Your task to perform on an android device: clear history in the chrome app Image 0: 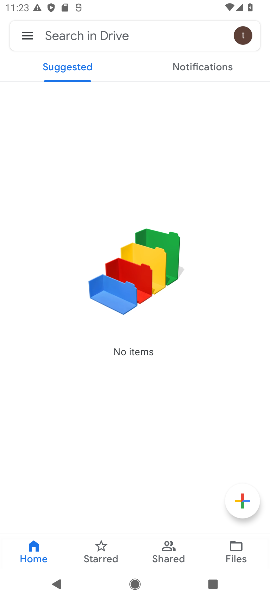
Step 0: press home button
Your task to perform on an android device: clear history in the chrome app Image 1: 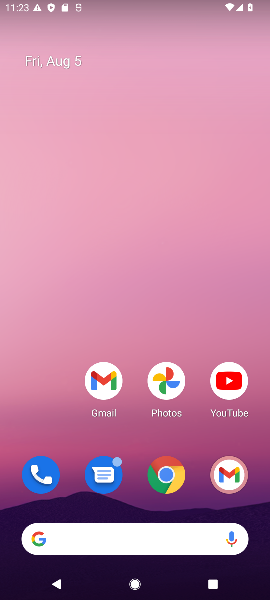
Step 1: click (176, 478)
Your task to perform on an android device: clear history in the chrome app Image 2: 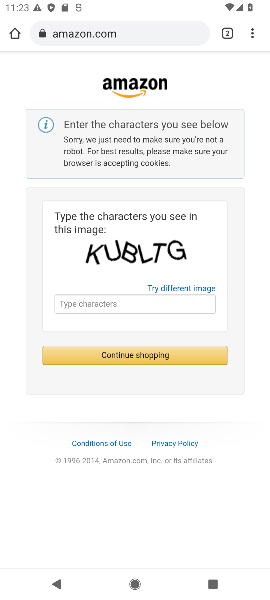
Step 2: click (253, 27)
Your task to perform on an android device: clear history in the chrome app Image 3: 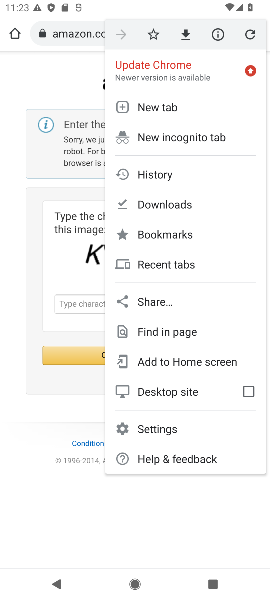
Step 3: click (148, 433)
Your task to perform on an android device: clear history in the chrome app Image 4: 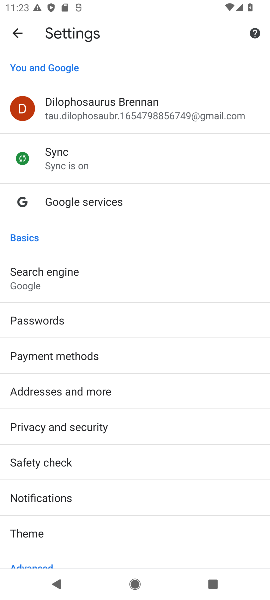
Step 4: drag from (104, 477) to (133, 314)
Your task to perform on an android device: clear history in the chrome app Image 5: 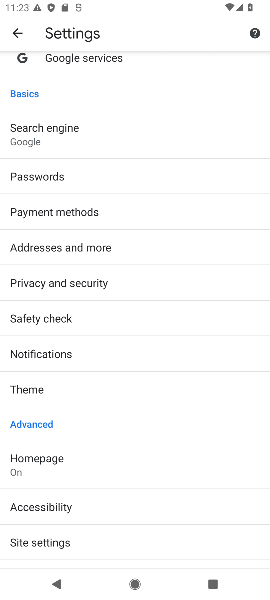
Step 5: click (20, 31)
Your task to perform on an android device: clear history in the chrome app Image 6: 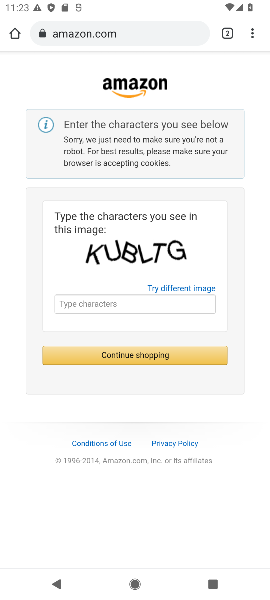
Step 6: click (252, 38)
Your task to perform on an android device: clear history in the chrome app Image 7: 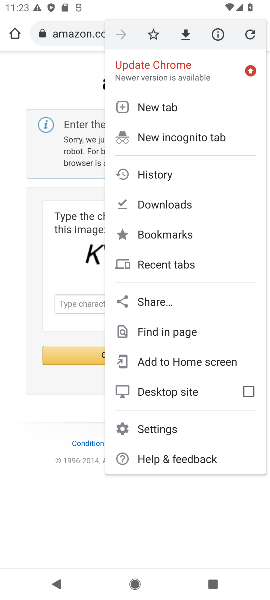
Step 7: click (170, 176)
Your task to perform on an android device: clear history in the chrome app Image 8: 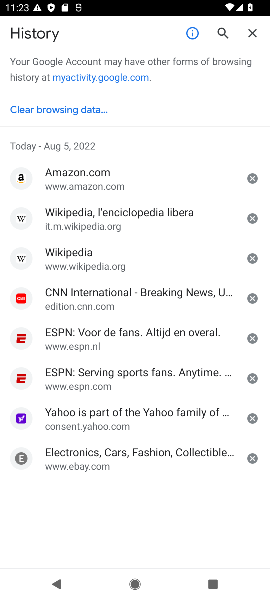
Step 8: click (56, 107)
Your task to perform on an android device: clear history in the chrome app Image 9: 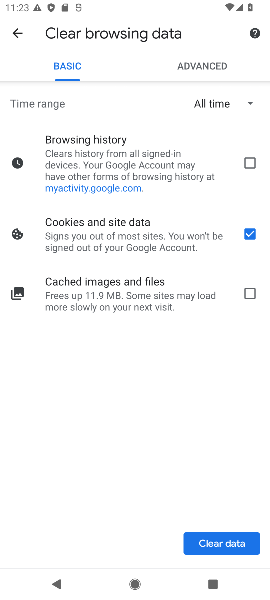
Step 9: click (243, 153)
Your task to perform on an android device: clear history in the chrome app Image 10: 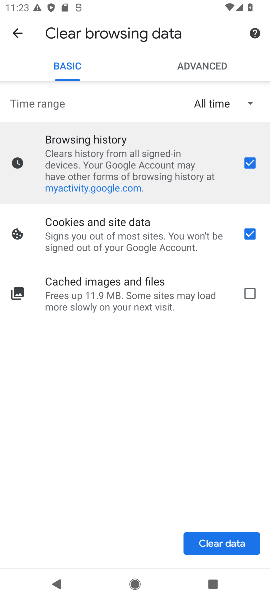
Step 10: click (247, 288)
Your task to perform on an android device: clear history in the chrome app Image 11: 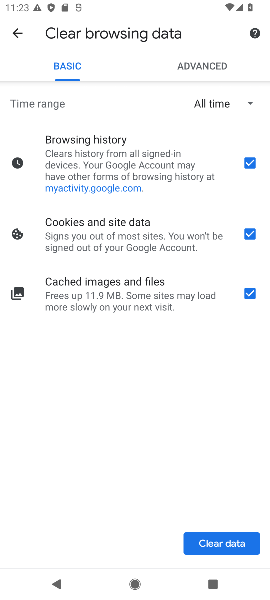
Step 11: click (224, 531)
Your task to perform on an android device: clear history in the chrome app Image 12: 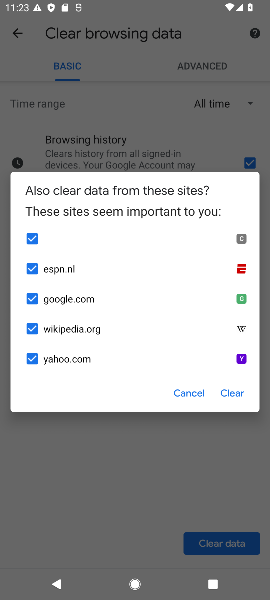
Step 12: click (238, 391)
Your task to perform on an android device: clear history in the chrome app Image 13: 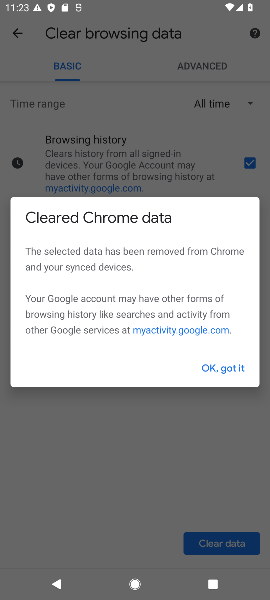
Step 13: click (212, 371)
Your task to perform on an android device: clear history in the chrome app Image 14: 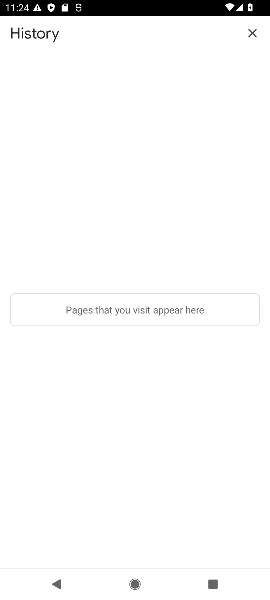
Step 14: task complete